Your task to perform on an android device: change the clock display to digital Image 0: 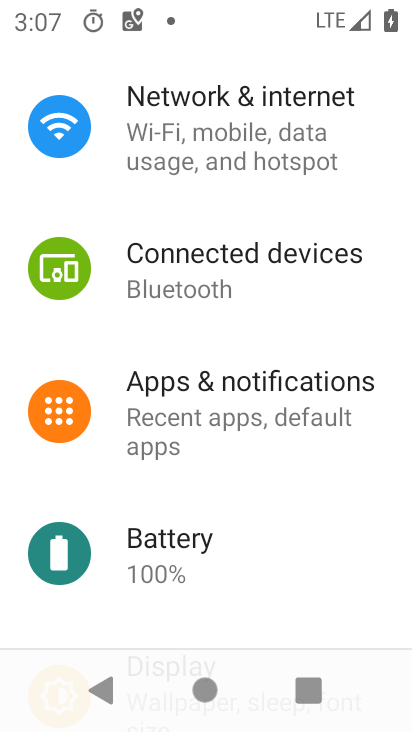
Step 0: press home button
Your task to perform on an android device: change the clock display to digital Image 1: 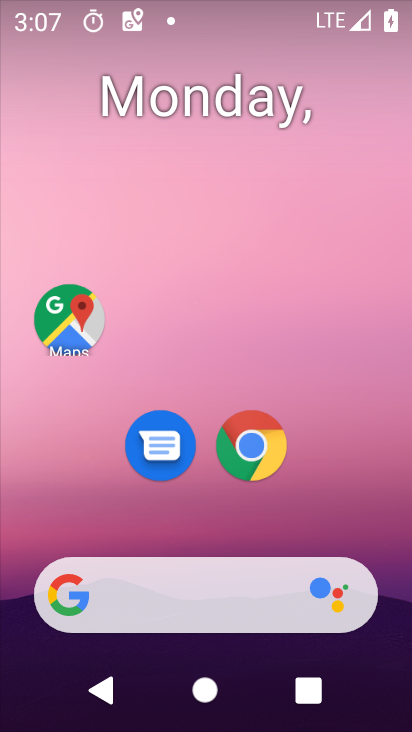
Step 1: drag from (199, 581) to (135, 129)
Your task to perform on an android device: change the clock display to digital Image 2: 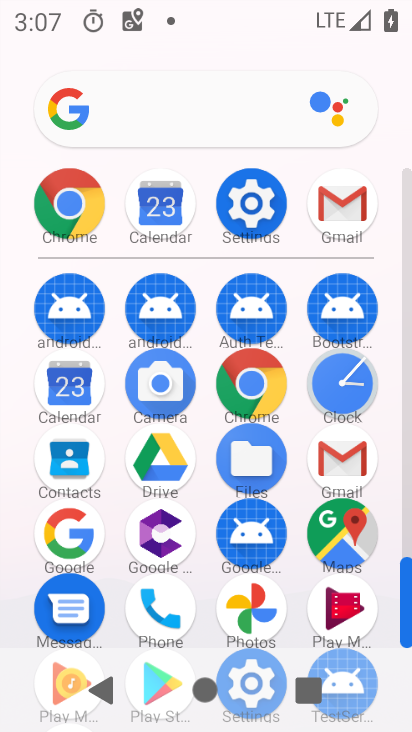
Step 2: click (323, 399)
Your task to perform on an android device: change the clock display to digital Image 3: 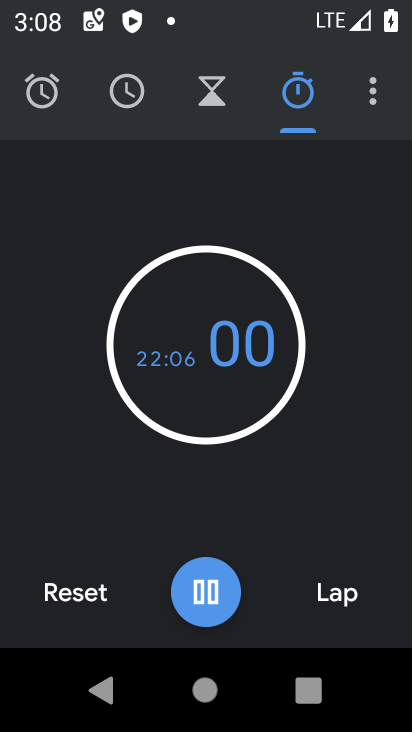
Step 3: drag from (377, 111) to (340, 132)
Your task to perform on an android device: change the clock display to digital Image 4: 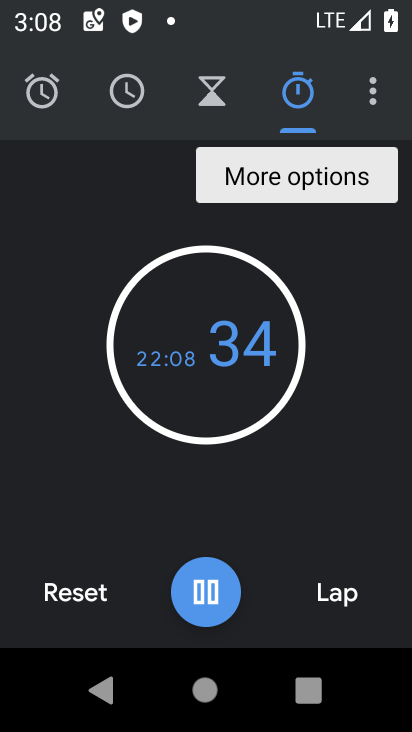
Step 4: click (371, 101)
Your task to perform on an android device: change the clock display to digital Image 5: 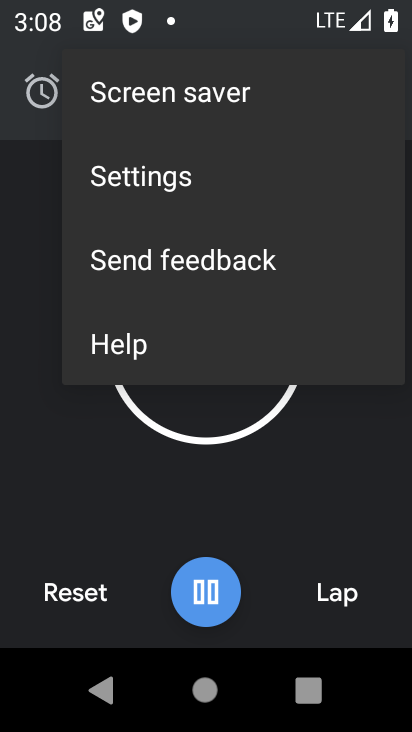
Step 5: click (224, 163)
Your task to perform on an android device: change the clock display to digital Image 6: 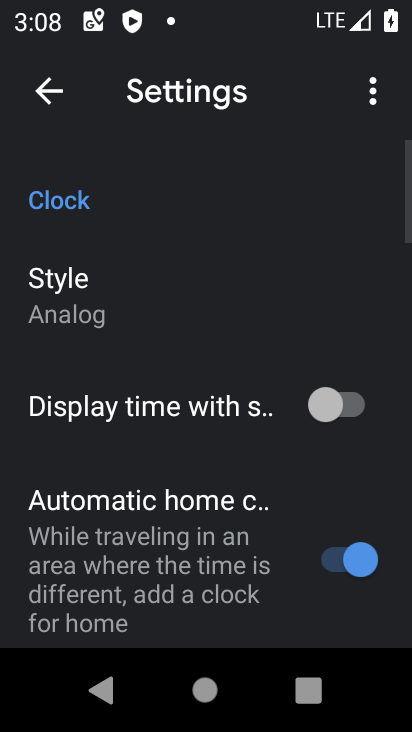
Step 6: click (70, 281)
Your task to perform on an android device: change the clock display to digital Image 7: 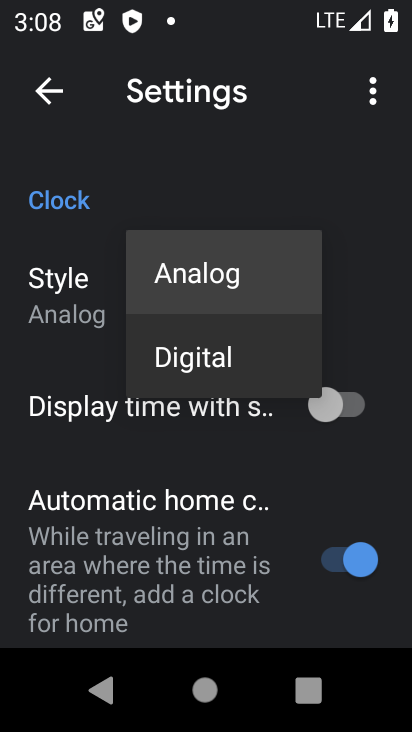
Step 7: click (141, 348)
Your task to perform on an android device: change the clock display to digital Image 8: 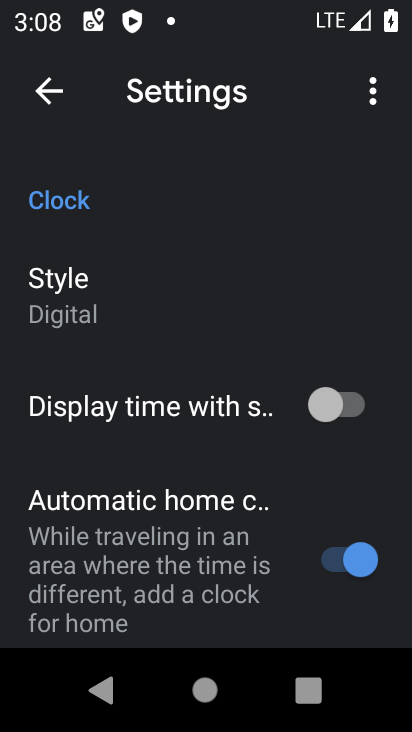
Step 8: task complete